Your task to perform on an android device: turn off javascript in the chrome app Image 0: 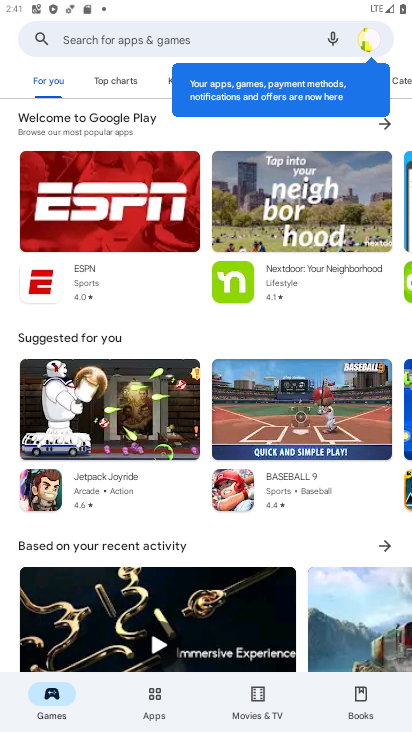
Step 0: press home button
Your task to perform on an android device: turn off javascript in the chrome app Image 1: 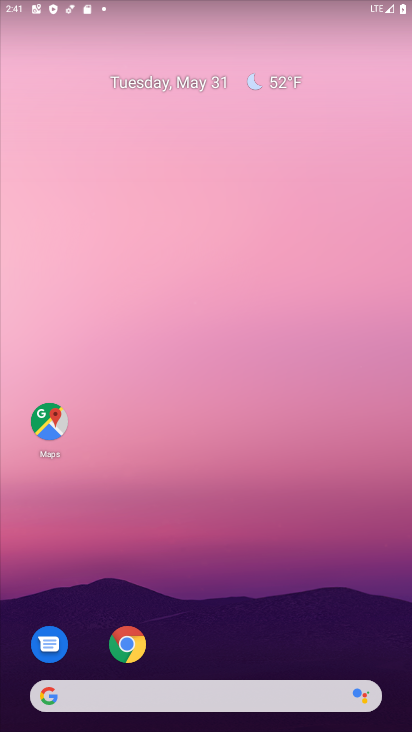
Step 1: click (122, 644)
Your task to perform on an android device: turn off javascript in the chrome app Image 2: 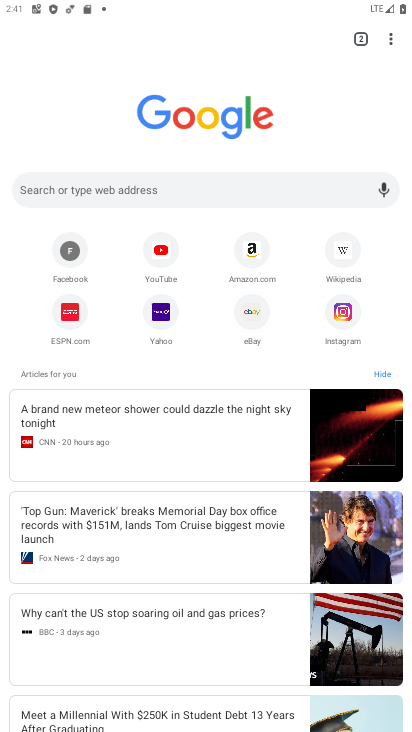
Step 2: click (391, 41)
Your task to perform on an android device: turn off javascript in the chrome app Image 3: 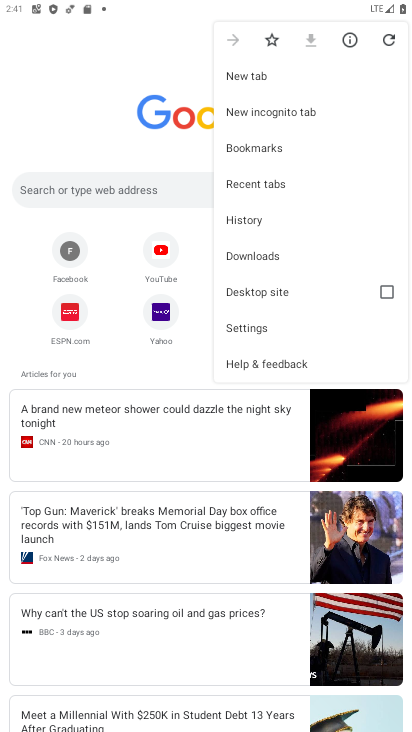
Step 3: click (248, 329)
Your task to perform on an android device: turn off javascript in the chrome app Image 4: 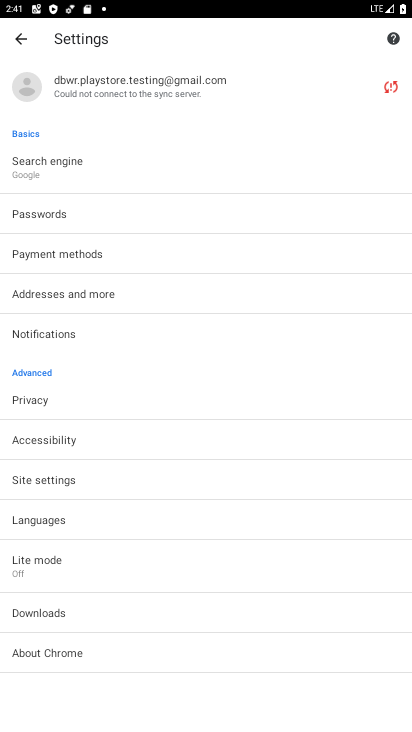
Step 4: click (54, 482)
Your task to perform on an android device: turn off javascript in the chrome app Image 5: 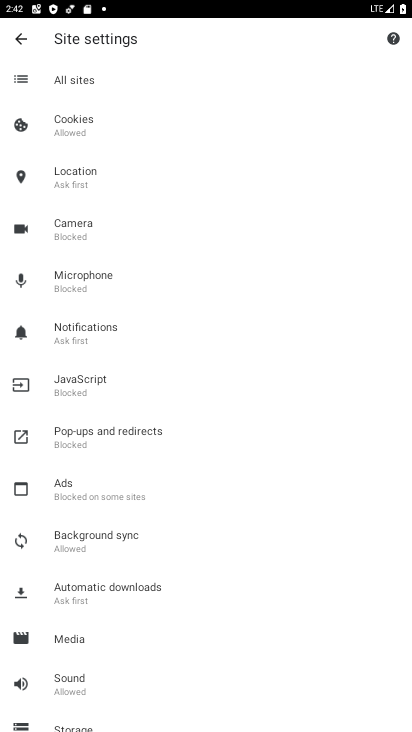
Step 5: click (74, 400)
Your task to perform on an android device: turn off javascript in the chrome app Image 6: 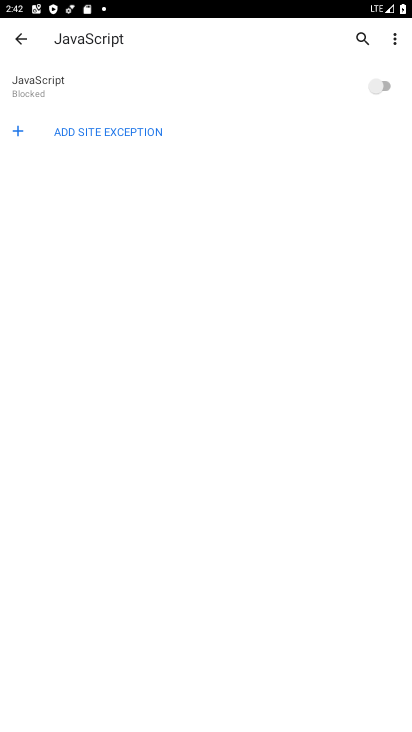
Step 6: task complete